Your task to perform on an android device: Open Youtube and go to "Your channel" Image 0: 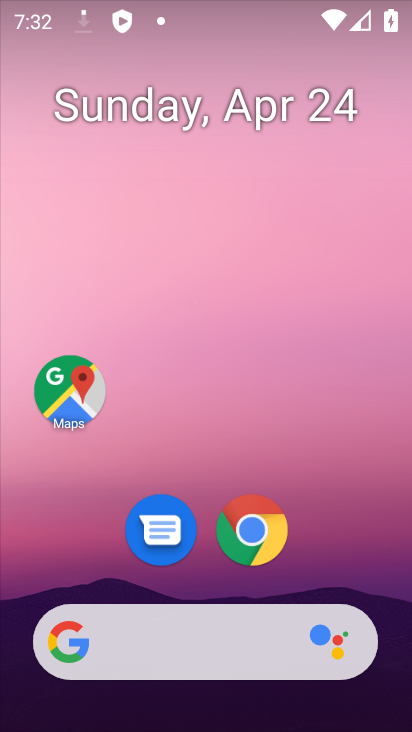
Step 0: drag from (213, 569) to (223, 11)
Your task to perform on an android device: Open Youtube and go to "Your channel" Image 1: 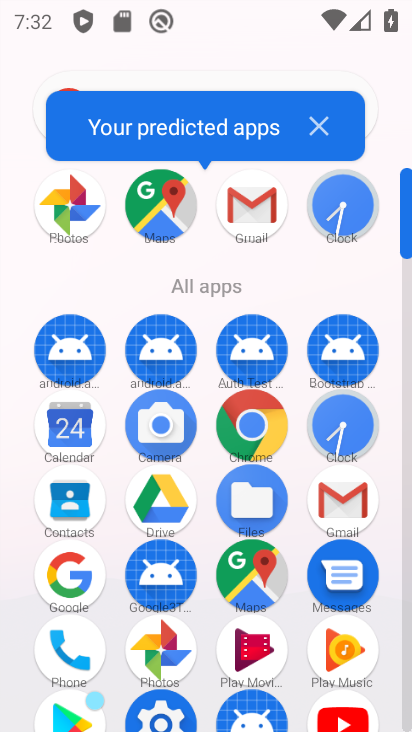
Step 1: click (346, 702)
Your task to perform on an android device: Open Youtube and go to "Your channel" Image 2: 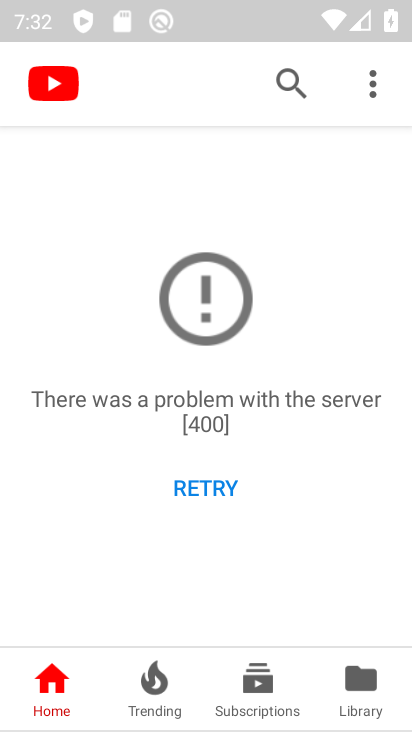
Step 2: click (282, 95)
Your task to perform on an android device: Open Youtube and go to "Your channel" Image 3: 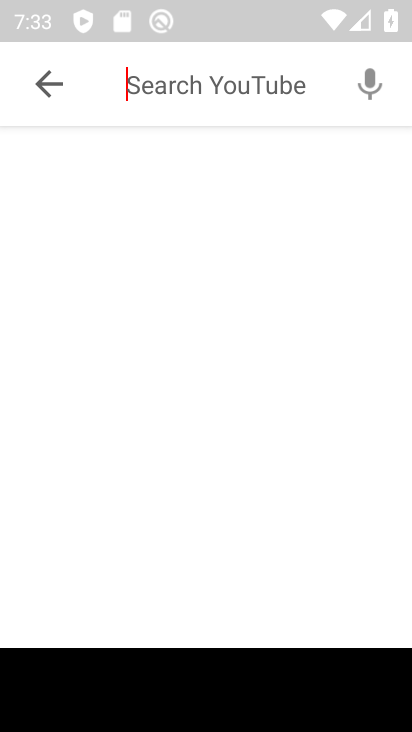
Step 3: task complete